Your task to perform on an android device: Open the phone app and click the voicemail tab. Image 0: 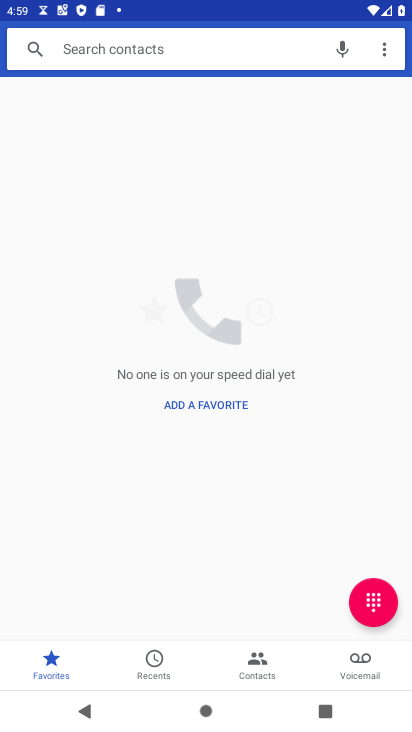
Step 0: press back button
Your task to perform on an android device: Open the phone app and click the voicemail tab. Image 1: 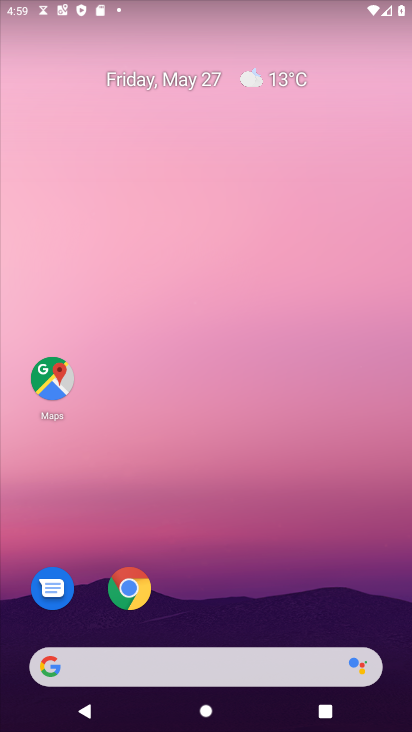
Step 1: drag from (222, 584) to (354, 41)
Your task to perform on an android device: Open the phone app and click the voicemail tab. Image 2: 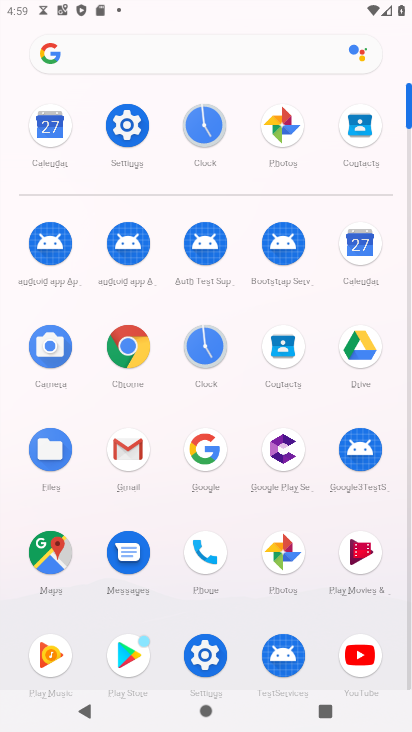
Step 2: click (192, 554)
Your task to perform on an android device: Open the phone app and click the voicemail tab. Image 3: 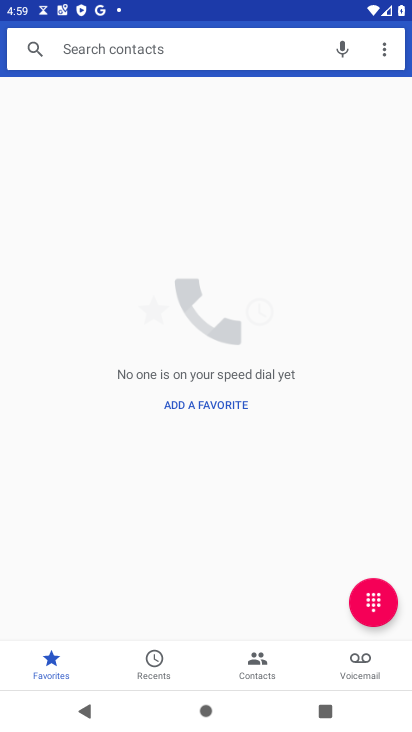
Step 3: click (361, 679)
Your task to perform on an android device: Open the phone app and click the voicemail tab. Image 4: 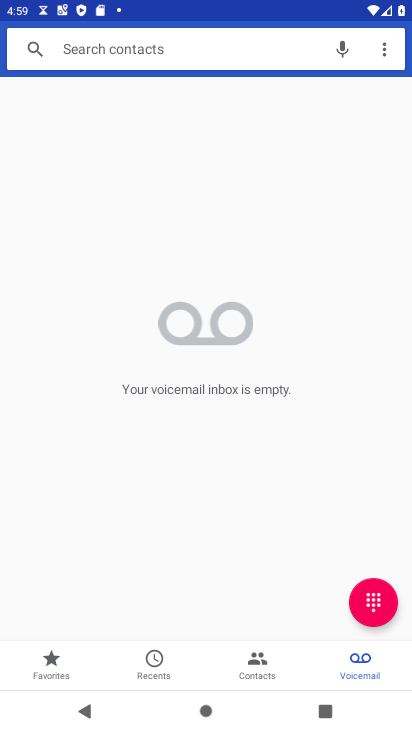
Step 4: task complete